Your task to perform on an android device: move an email to a new category in the gmail app Image 0: 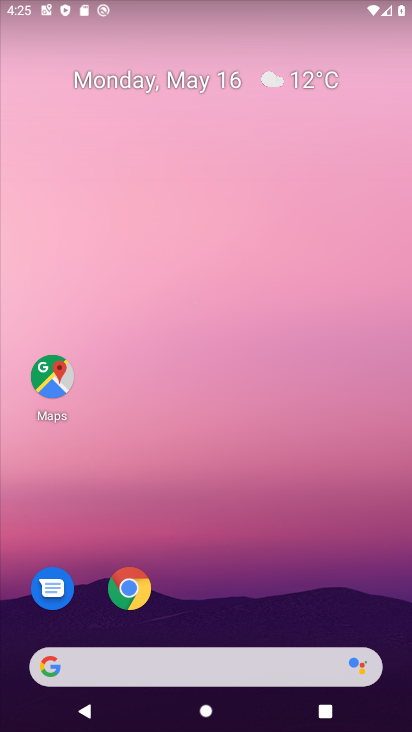
Step 0: drag from (257, 567) to (320, 110)
Your task to perform on an android device: move an email to a new category in the gmail app Image 1: 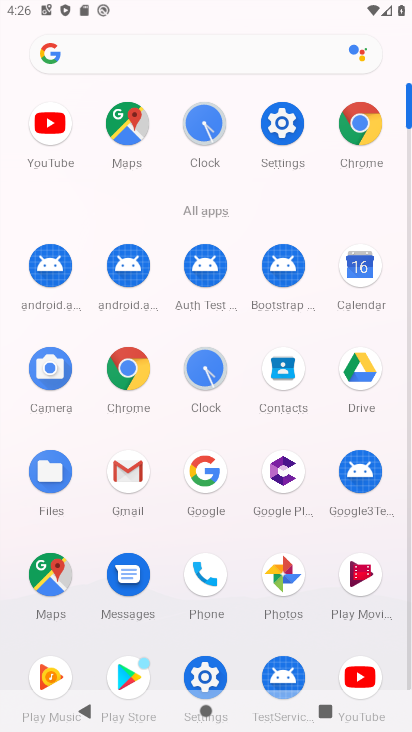
Step 1: click (128, 468)
Your task to perform on an android device: move an email to a new category in the gmail app Image 2: 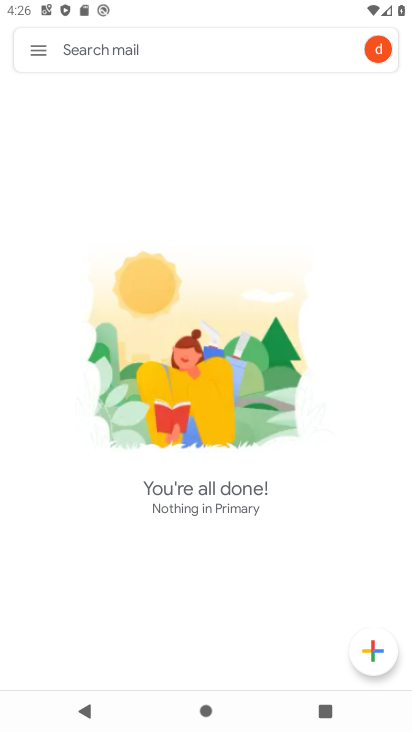
Step 2: click (35, 52)
Your task to perform on an android device: move an email to a new category in the gmail app Image 3: 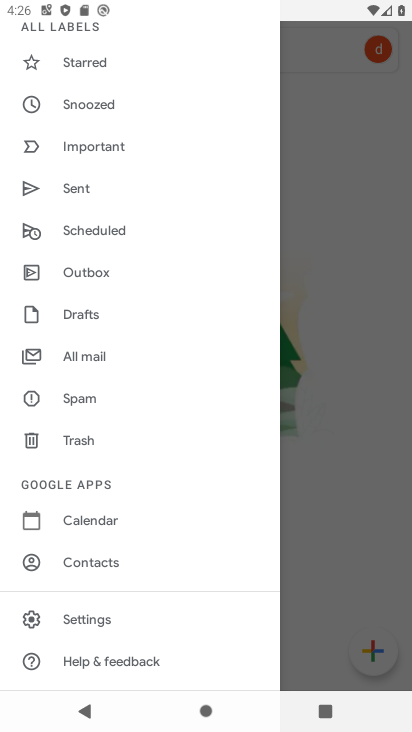
Step 3: click (107, 348)
Your task to perform on an android device: move an email to a new category in the gmail app Image 4: 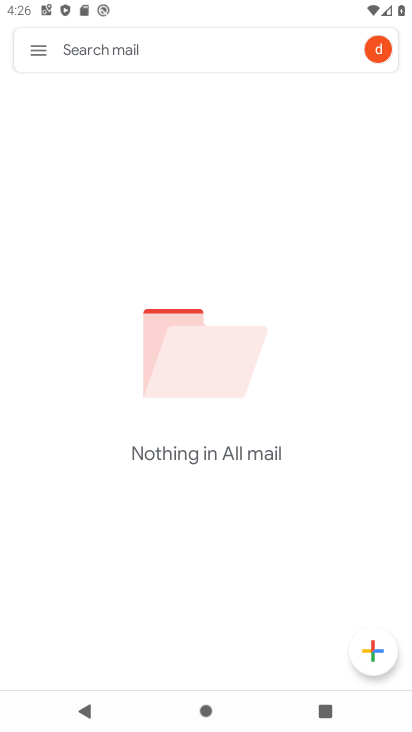
Step 4: task complete